Your task to perform on an android device: check google app version Image 0: 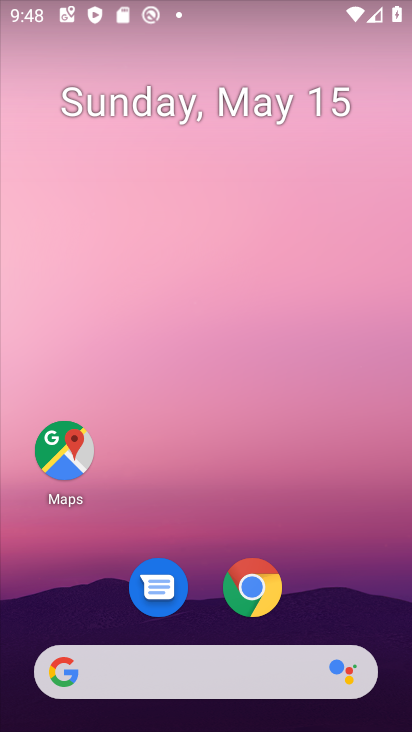
Step 0: drag from (399, 632) to (331, 156)
Your task to perform on an android device: check google app version Image 1: 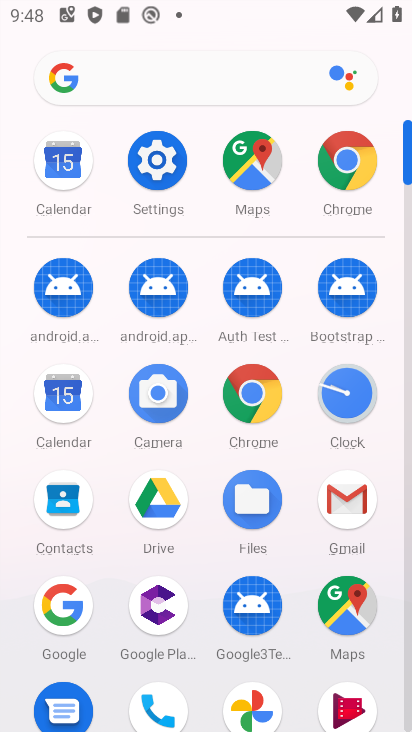
Step 1: click (63, 584)
Your task to perform on an android device: check google app version Image 2: 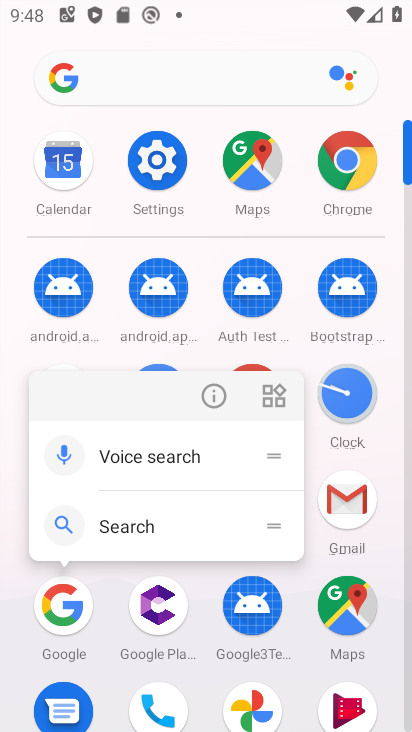
Step 2: click (217, 402)
Your task to perform on an android device: check google app version Image 3: 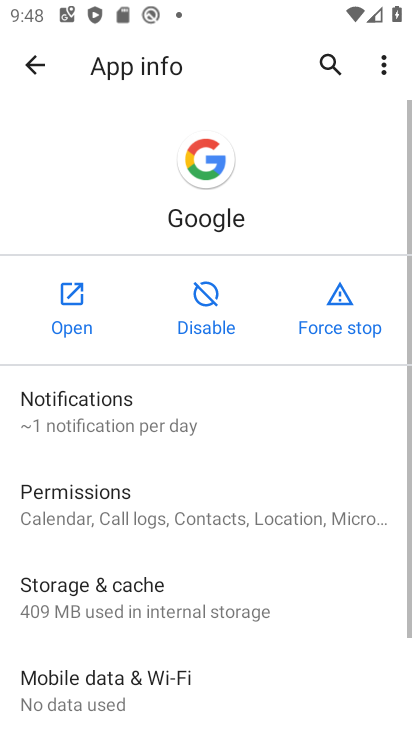
Step 3: click (225, 648)
Your task to perform on an android device: check google app version Image 4: 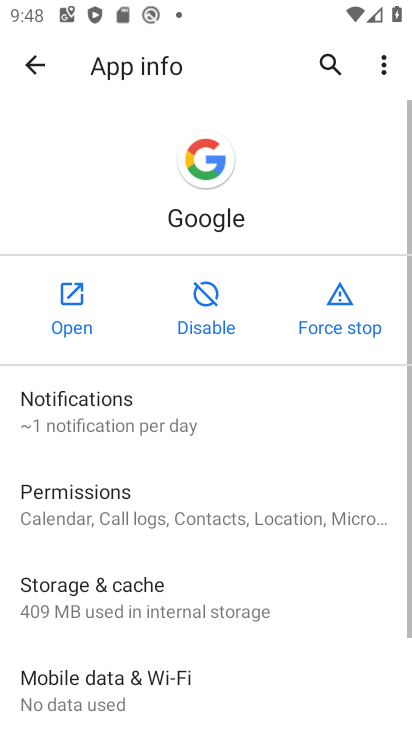
Step 4: drag from (239, 359) to (237, 157)
Your task to perform on an android device: check google app version Image 5: 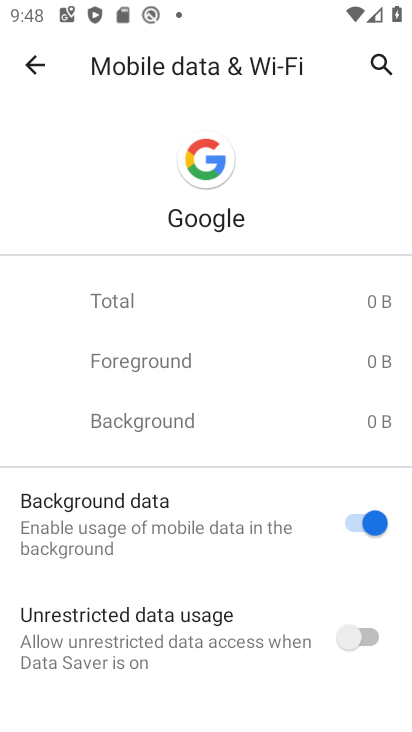
Step 5: drag from (103, 688) to (203, 118)
Your task to perform on an android device: check google app version Image 6: 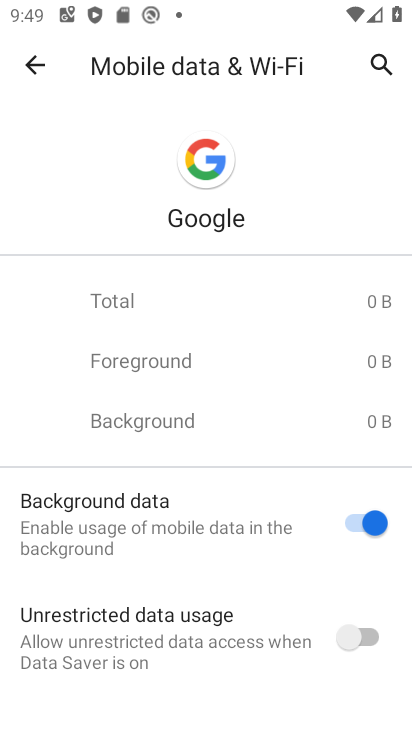
Step 6: drag from (148, 637) to (205, 104)
Your task to perform on an android device: check google app version Image 7: 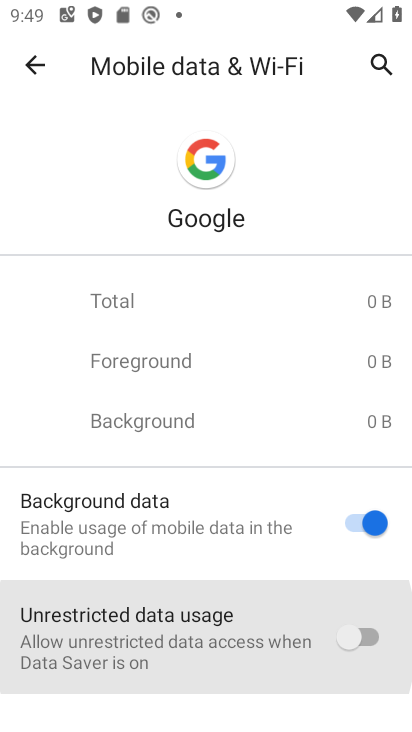
Step 7: click (123, 124)
Your task to perform on an android device: check google app version Image 8: 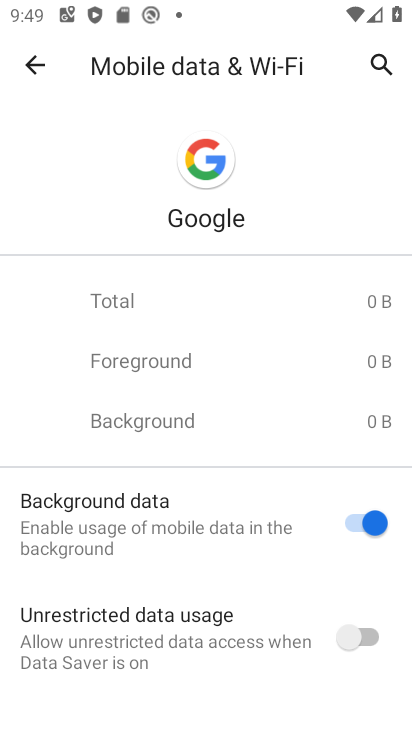
Step 8: click (218, 94)
Your task to perform on an android device: check google app version Image 9: 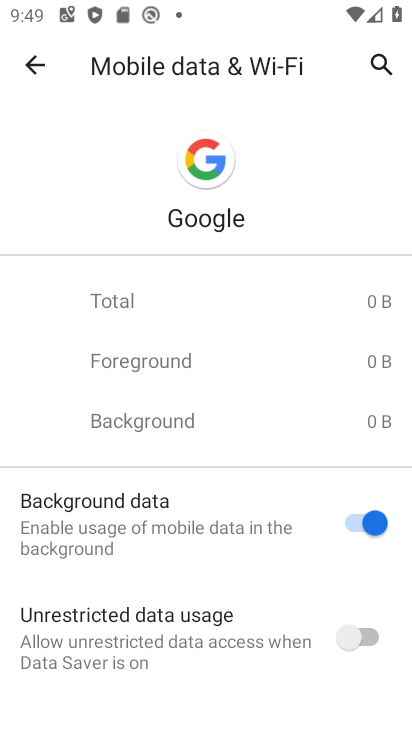
Step 9: task complete